Your task to perform on an android device: turn smart compose on in the gmail app Image 0: 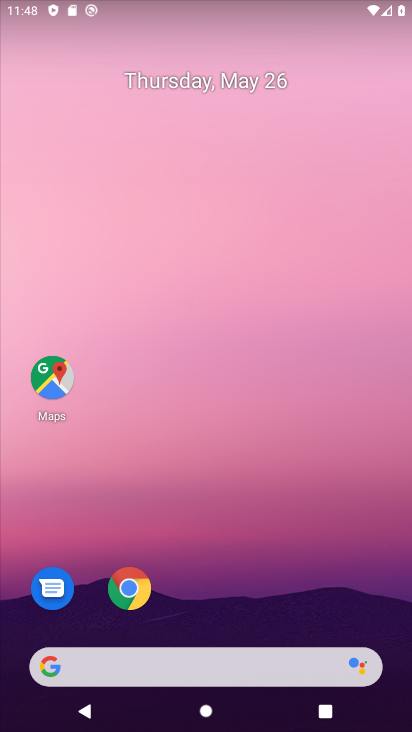
Step 0: drag from (333, 616) to (409, 302)
Your task to perform on an android device: turn smart compose on in the gmail app Image 1: 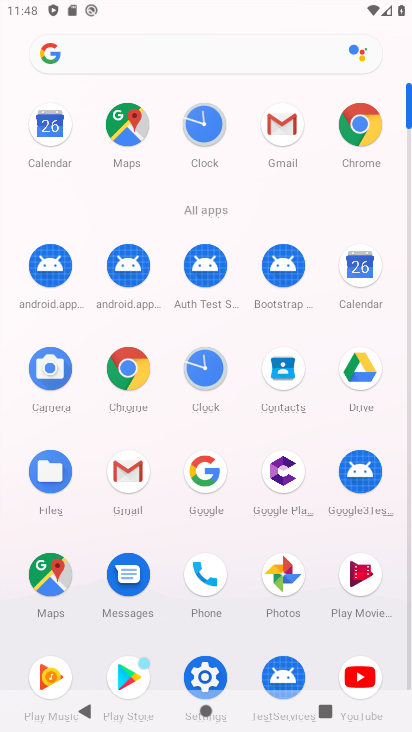
Step 1: click (282, 143)
Your task to perform on an android device: turn smart compose on in the gmail app Image 2: 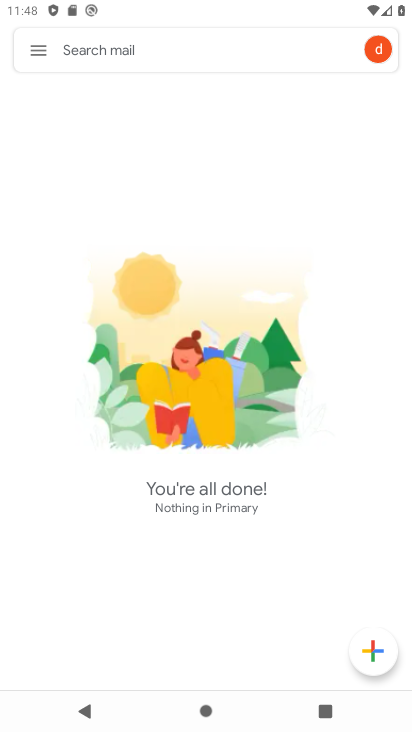
Step 2: click (41, 45)
Your task to perform on an android device: turn smart compose on in the gmail app Image 3: 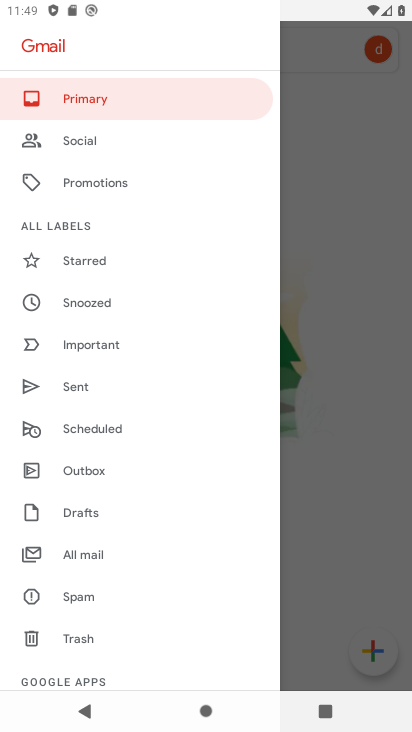
Step 3: drag from (154, 540) to (176, 329)
Your task to perform on an android device: turn smart compose on in the gmail app Image 4: 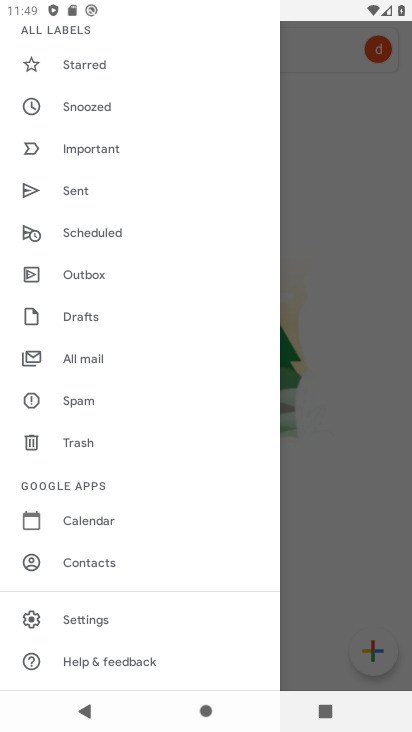
Step 4: click (156, 616)
Your task to perform on an android device: turn smart compose on in the gmail app Image 5: 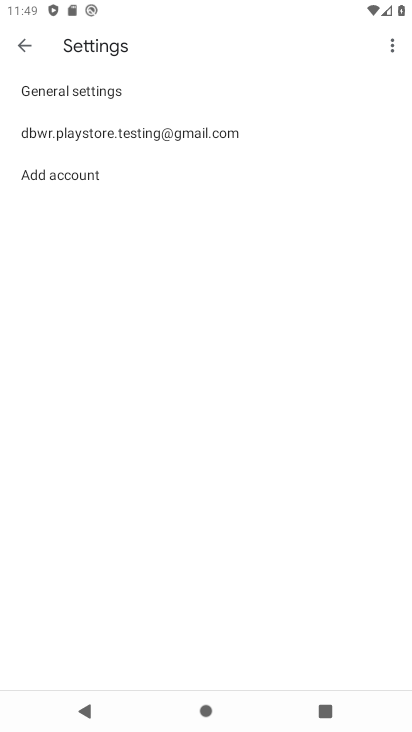
Step 5: click (213, 132)
Your task to perform on an android device: turn smart compose on in the gmail app Image 6: 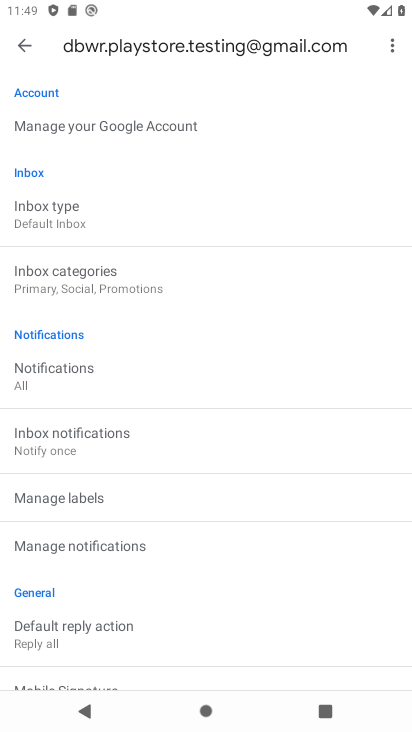
Step 6: task complete